Your task to perform on an android device: allow notifications from all sites in the chrome app Image 0: 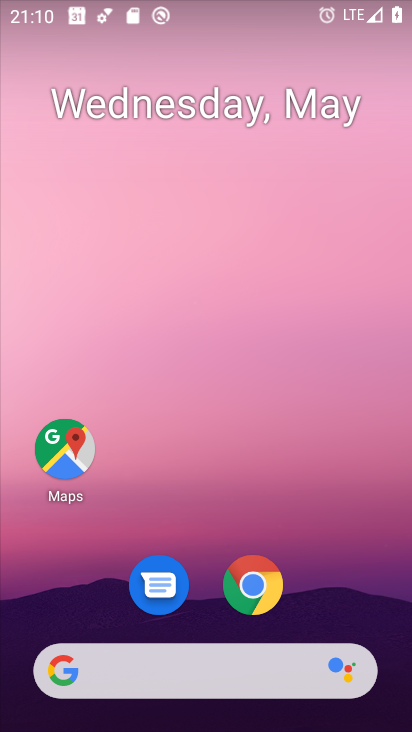
Step 0: click (246, 567)
Your task to perform on an android device: allow notifications from all sites in the chrome app Image 1: 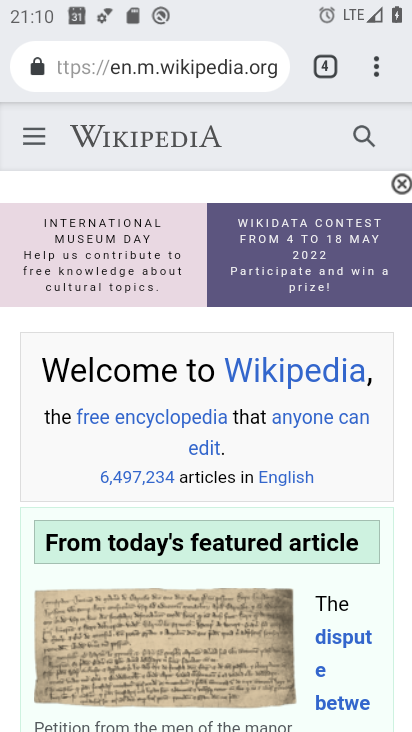
Step 1: click (372, 65)
Your task to perform on an android device: allow notifications from all sites in the chrome app Image 2: 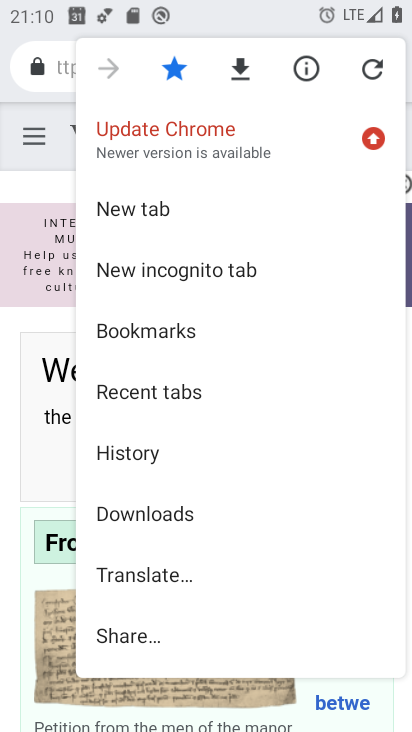
Step 2: drag from (255, 536) to (266, 217)
Your task to perform on an android device: allow notifications from all sites in the chrome app Image 3: 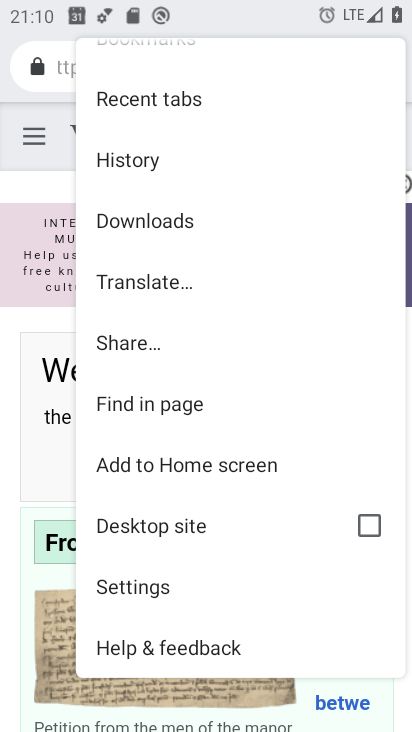
Step 3: click (189, 586)
Your task to perform on an android device: allow notifications from all sites in the chrome app Image 4: 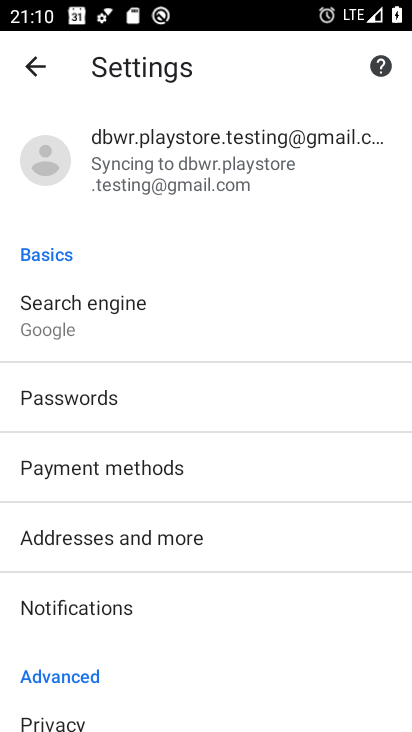
Step 4: click (259, 599)
Your task to perform on an android device: allow notifications from all sites in the chrome app Image 5: 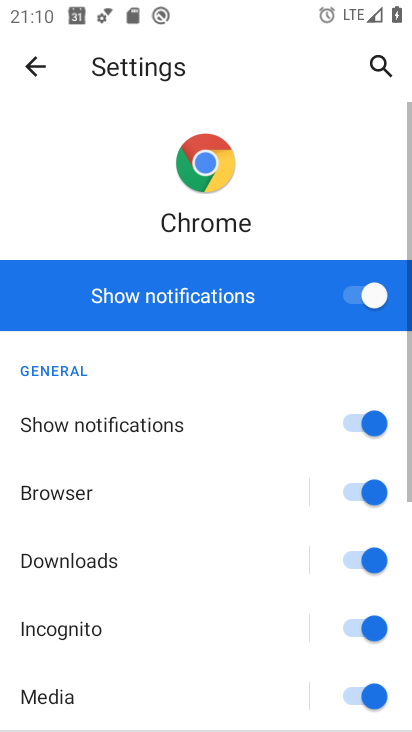
Step 5: task complete